Your task to perform on an android device: Is it going to rain this weekend? Image 0: 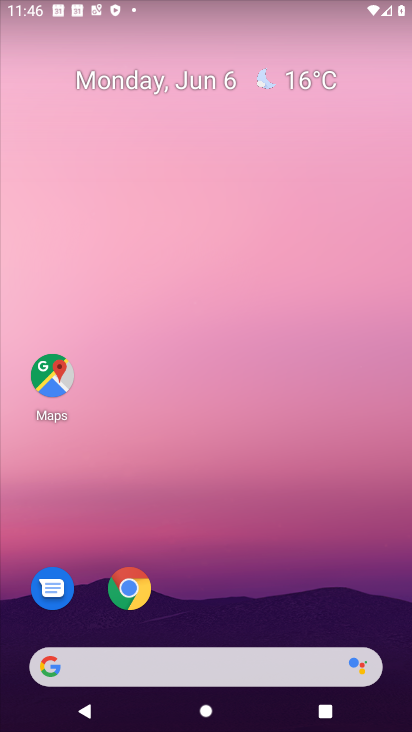
Step 0: drag from (249, 637) to (253, 24)
Your task to perform on an android device: Is it going to rain this weekend? Image 1: 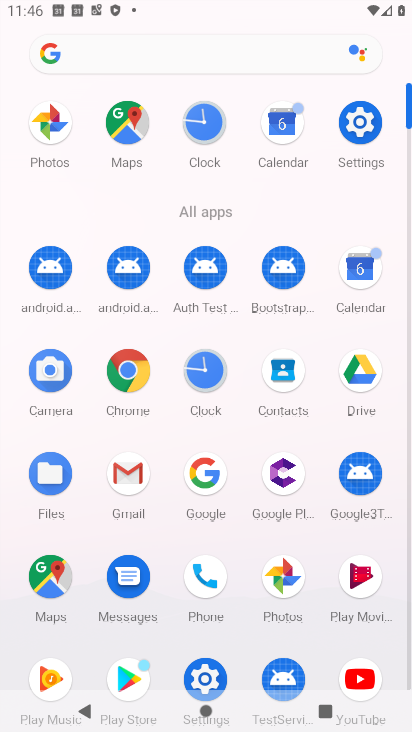
Step 1: click (207, 479)
Your task to perform on an android device: Is it going to rain this weekend? Image 2: 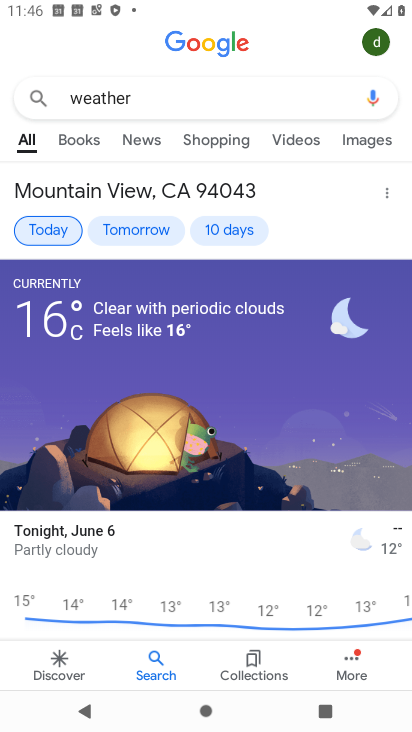
Step 2: click (220, 242)
Your task to perform on an android device: Is it going to rain this weekend? Image 3: 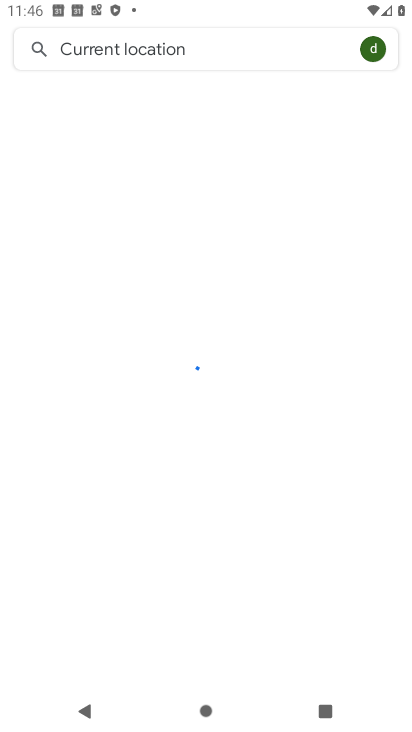
Step 3: click (228, 242)
Your task to perform on an android device: Is it going to rain this weekend? Image 4: 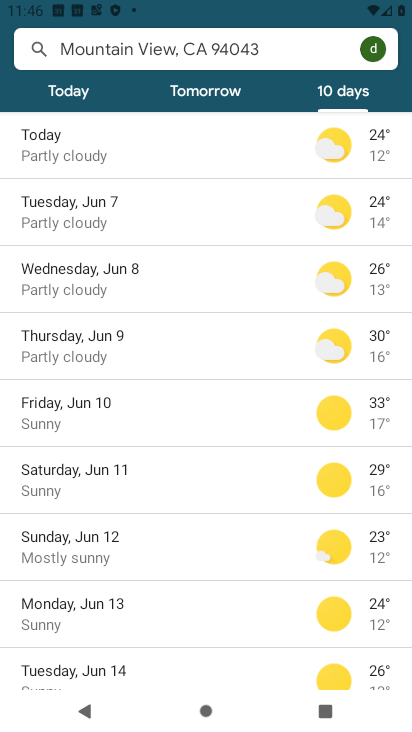
Step 4: task complete